Your task to perform on an android device: check android version Image 0: 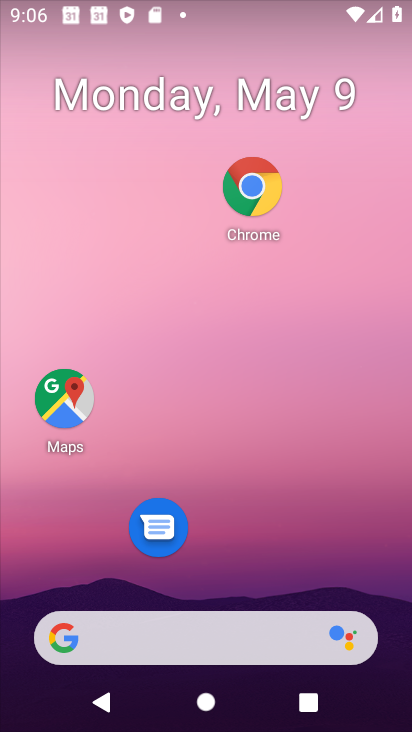
Step 0: drag from (219, 582) to (251, 9)
Your task to perform on an android device: check android version Image 1: 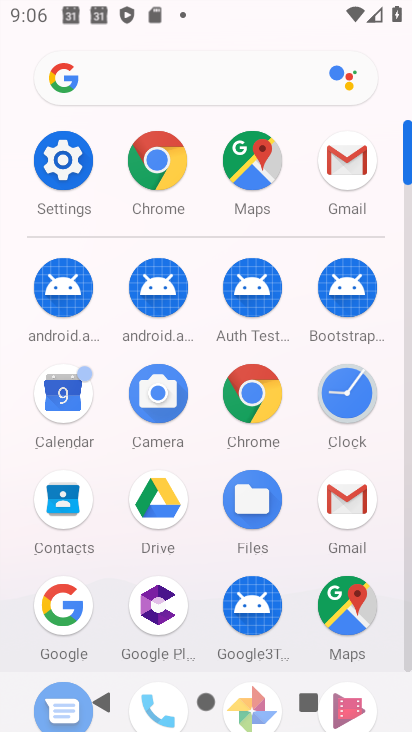
Step 1: click (60, 158)
Your task to perform on an android device: check android version Image 2: 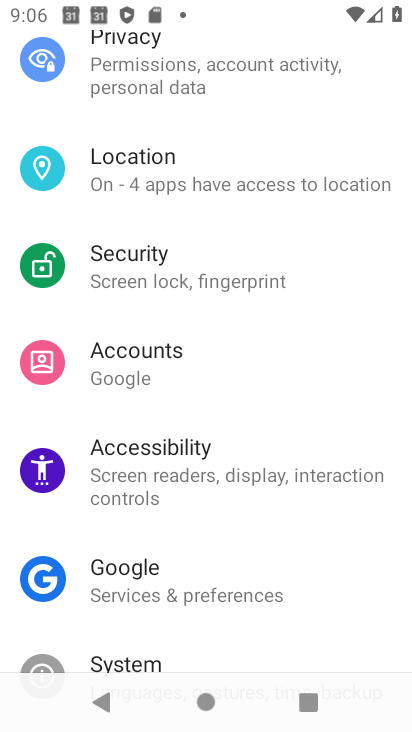
Step 2: drag from (224, 619) to (235, 129)
Your task to perform on an android device: check android version Image 3: 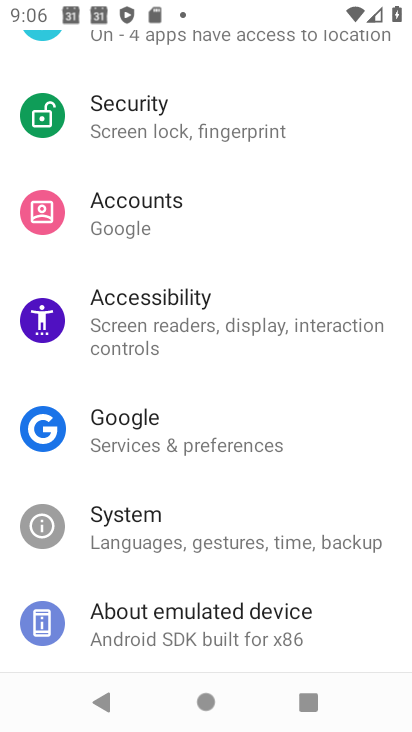
Step 3: click (220, 628)
Your task to perform on an android device: check android version Image 4: 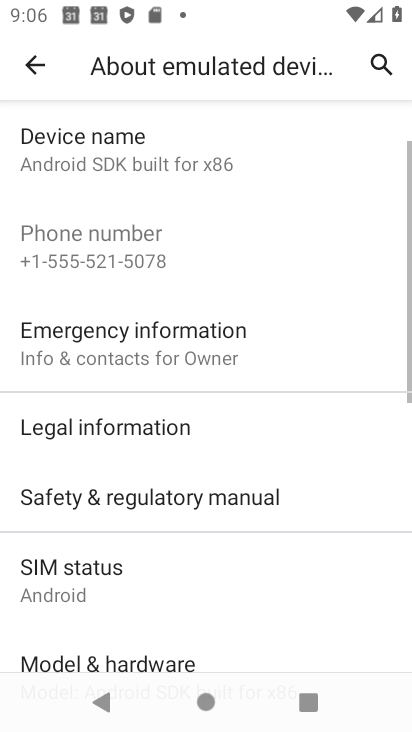
Step 4: drag from (162, 594) to (203, 157)
Your task to perform on an android device: check android version Image 5: 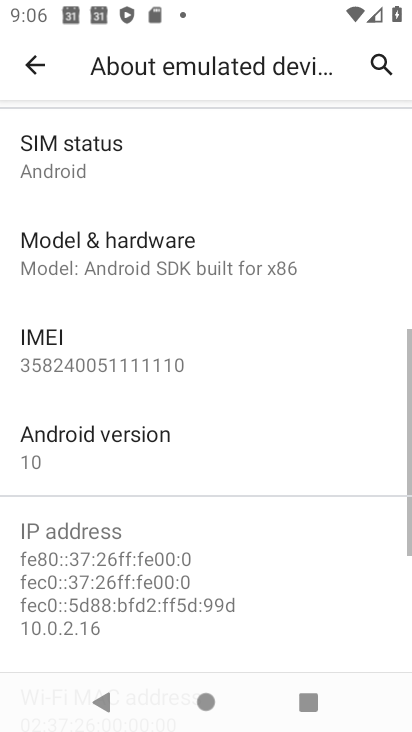
Step 5: click (118, 449)
Your task to perform on an android device: check android version Image 6: 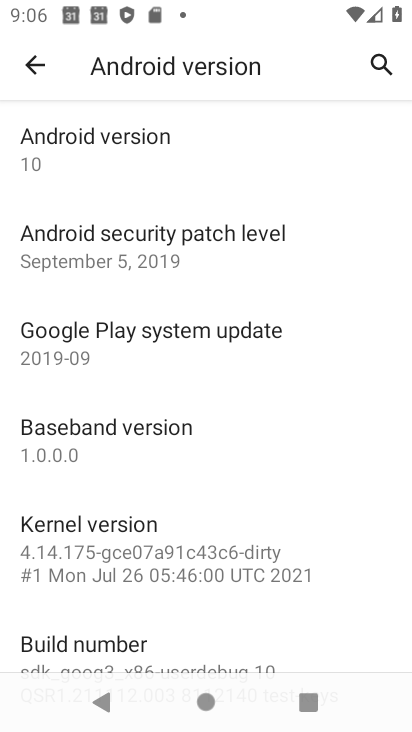
Step 6: task complete